Your task to perform on an android device: Go to settings Image 0: 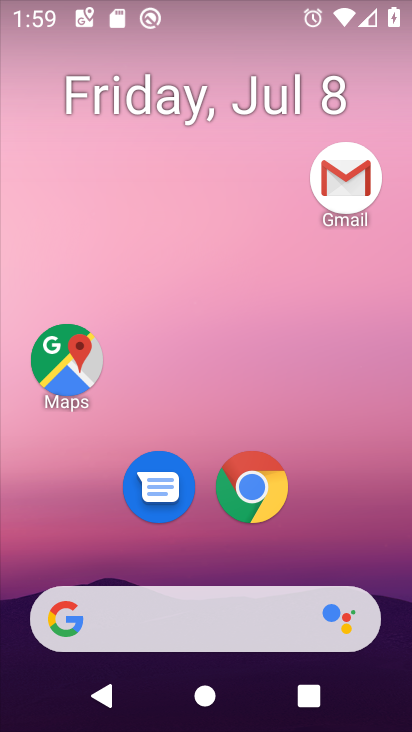
Step 0: drag from (336, 534) to (343, 175)
Your task to perform on an android device: Go to settings Image 1: 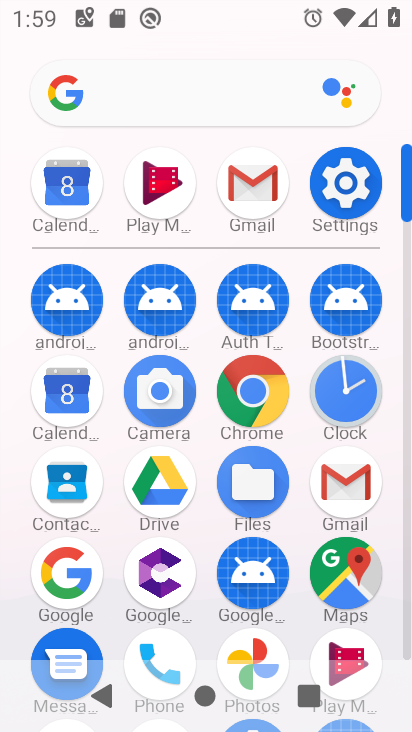
Step 1: click (350, 191)
Your task to perform on an android device: Go to settings Image 2: 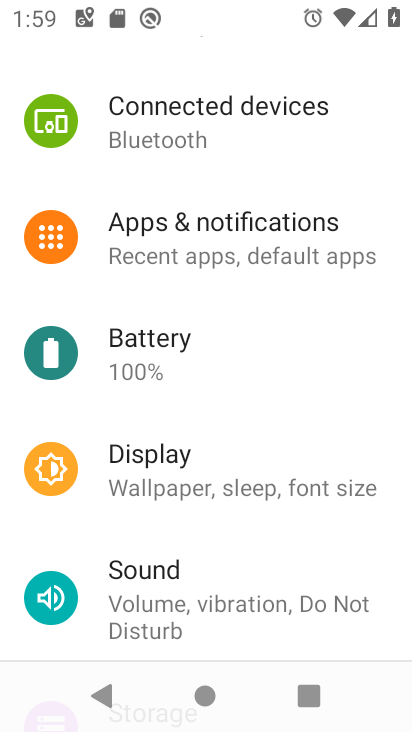
Step 2: task complete